Your task to perform on an android device: Open the calendar app, open the side menu, and click the "Day" option Image 0: 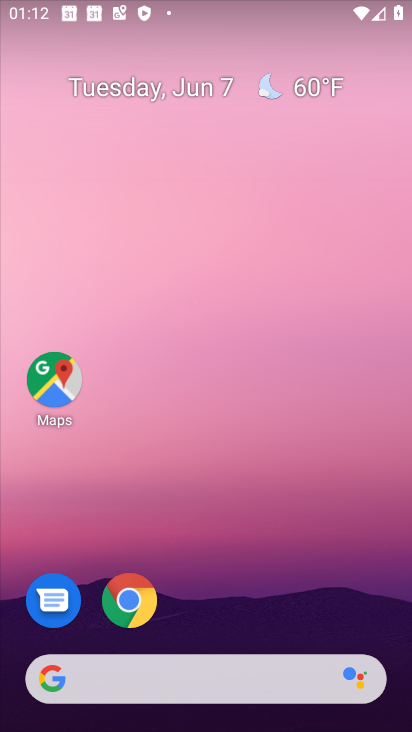
Step 0: drag from (258, 726) to (258, 221)
Your task to perform on an android device: Open the calendar app, open the side menu, and click the "Day" option Image 1: 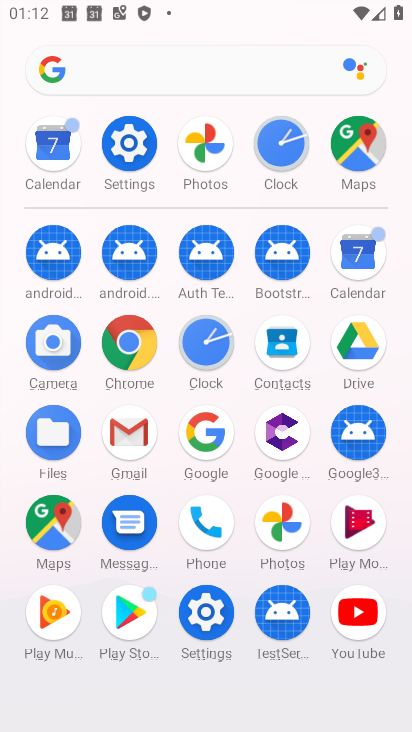
Step 1: click (364, 257)
Your task to perform on an android device: Open the calendar app, open the side menu, and click the "Day" option Image 2: 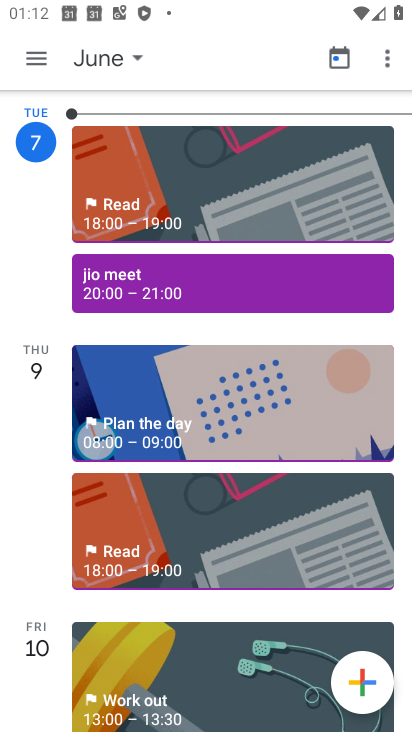
Step 2: click (39, 57)
Your task to perform on an android device: Open the calendar app, open the side menu, and click the "Day" option Image 3: 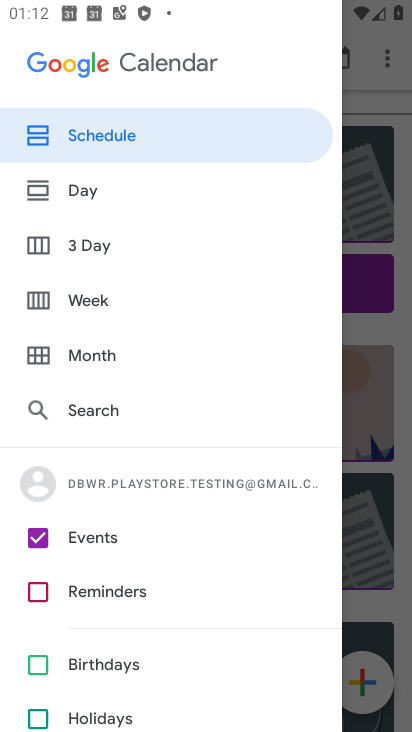
Step 3: click (85, 187)
Your task to perform on an android device: Open the calendar app, open the side menu, and click the "Day" option Image 4: 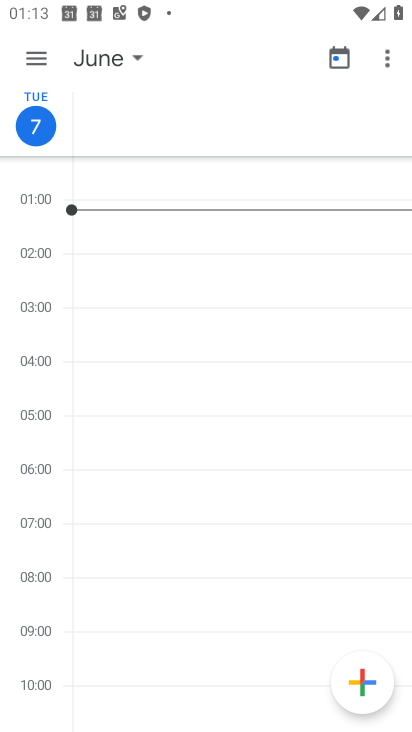
Step 4: task complete